Your task to perform on an android device: What's the weather going to be tomorrow? Image 0: 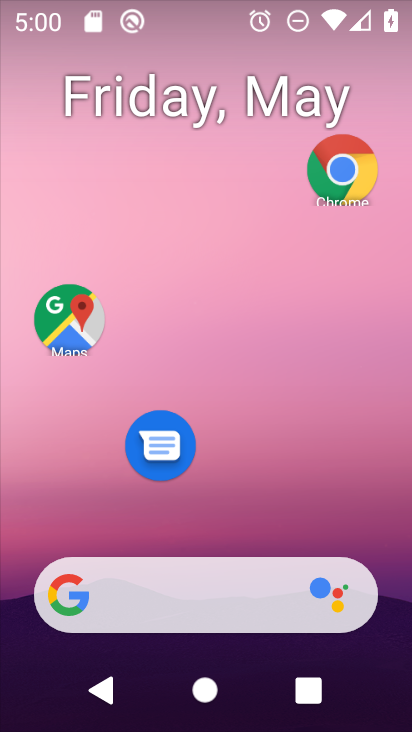
Step 0: click (228, 485)
Your task to perform on an android device: What's the weather going to be tomorrow? Image 1: 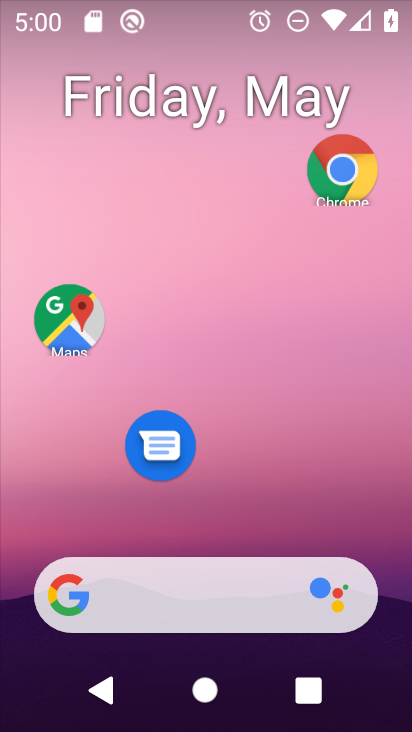
Step 1: click (173, 602)
Your task to perform on an android device: What's the weather going to be tomorrow? Image 2: 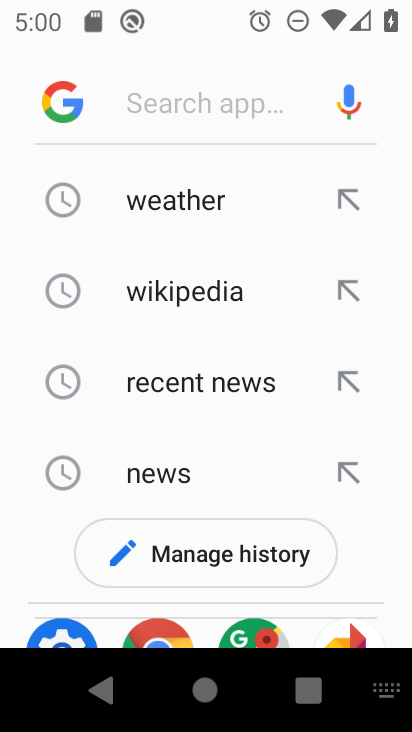
Step 2: click (189, 206)
Your task to perform on an android device: What's the weather going to be tomorrow? Image 3: 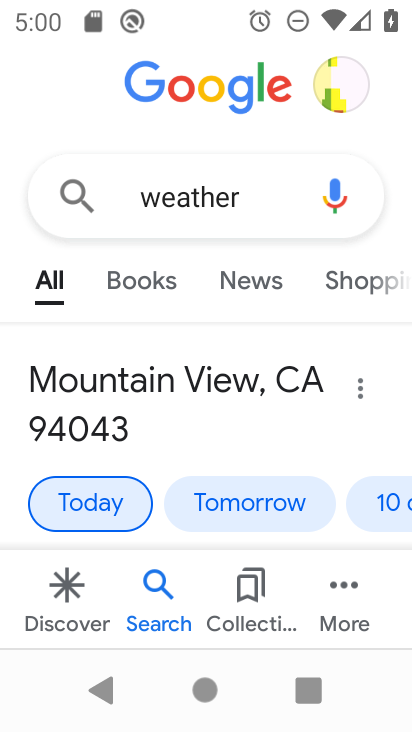
Step 3: click (279, 517)
Your task to perform on an android device: What's the weather going to be tomorrow? Image 4: 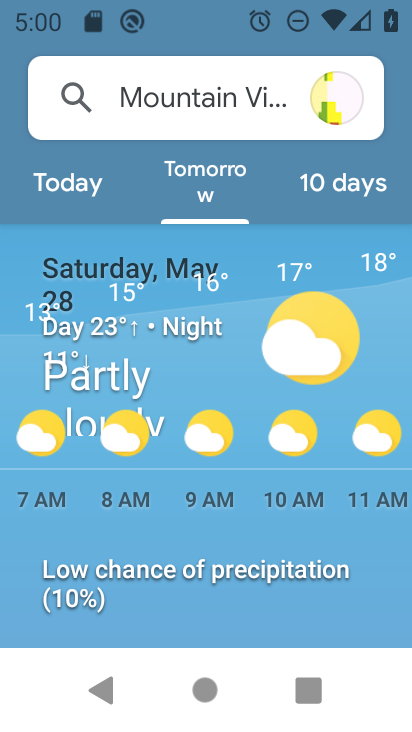
Step 4: task complete